Your task to perform on an android device: Open Wikipedia Image 0: 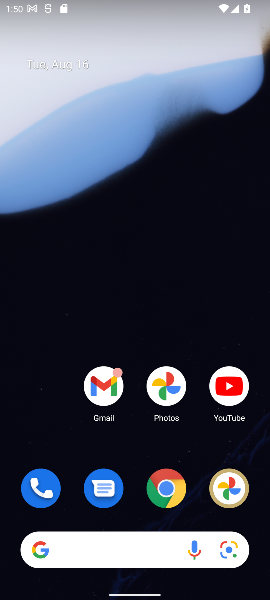
Step 0: drag from (72, 425) to (74, 93)
Your task to perform on an android device: Open Wikipedia Image 1: 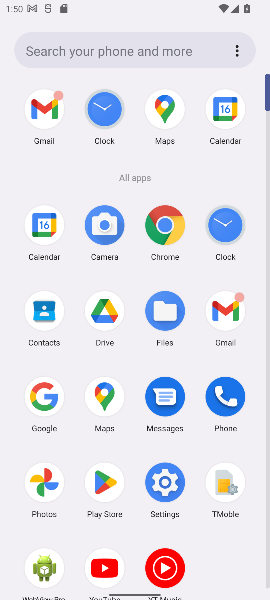
Step 1: click (161, 239)
Your task to perform on an android device: Open Wikipedia Image 2: 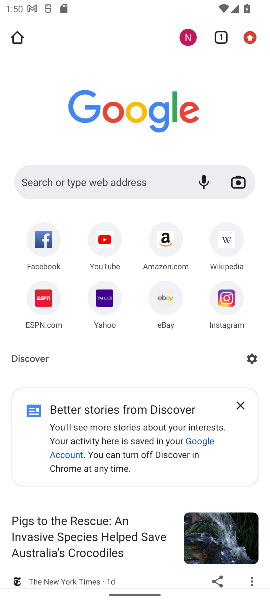
Step 2: click (105, 179)
Your task to perform on an android device: Open Wikipedia Image 3: 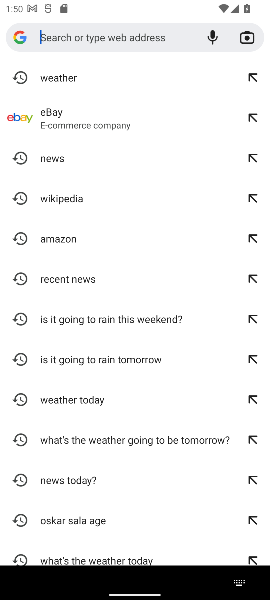
Step 3: type "Wikipedia"
Your task to perform on an android device: Open Wikipedia Image 4: 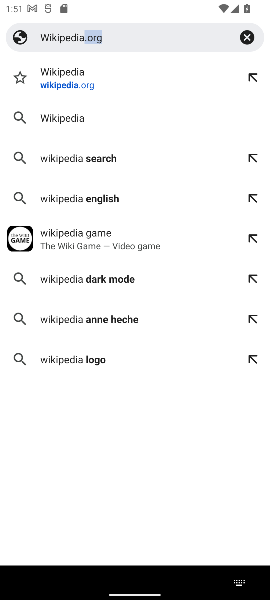
Step 4: press enter
Your task to perform on an android device: Open Wikipedia Image 5: 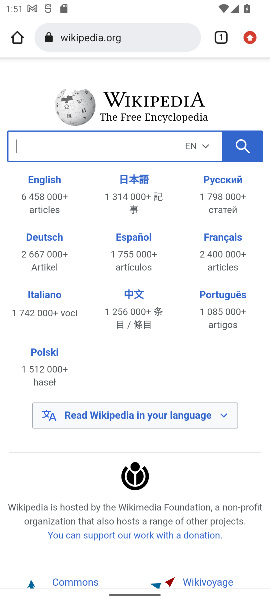
Step 5: task complete